Your task to perform on an android device: install app "Reddit" Image 0: 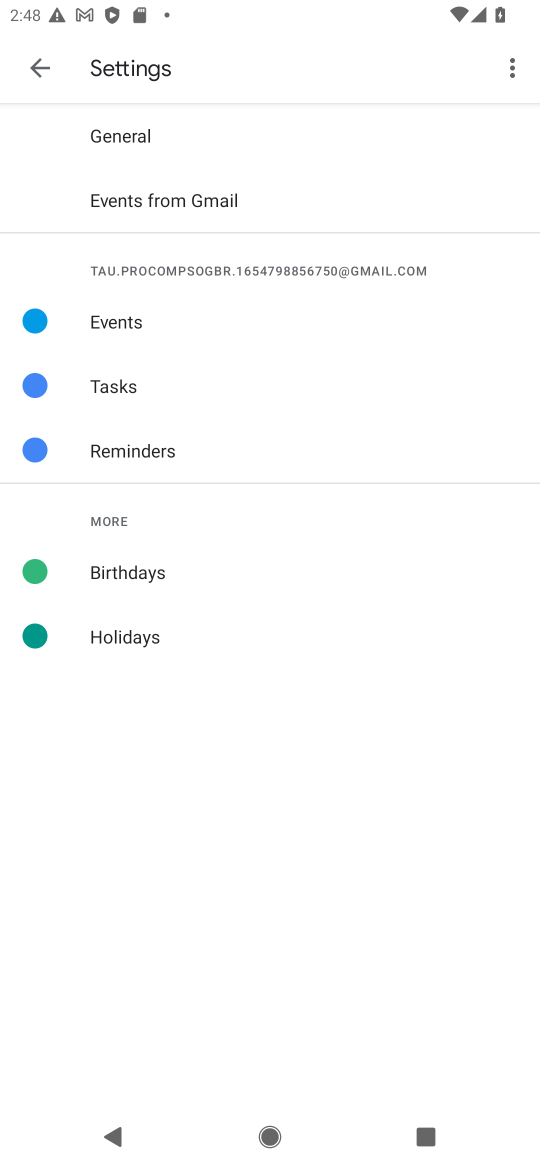
Step 0: press home button
Your task to perform on an android device: install app "Reddit" Image 1: 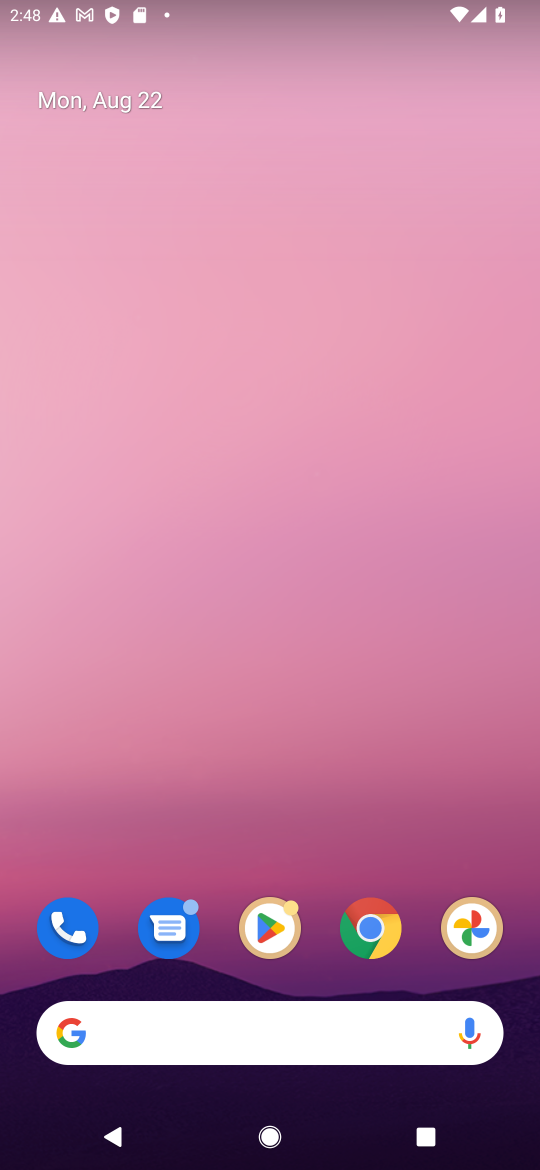
Step 1: click (257, 923)
Your task to perform on an android device: install app "Reddit" Image 2: 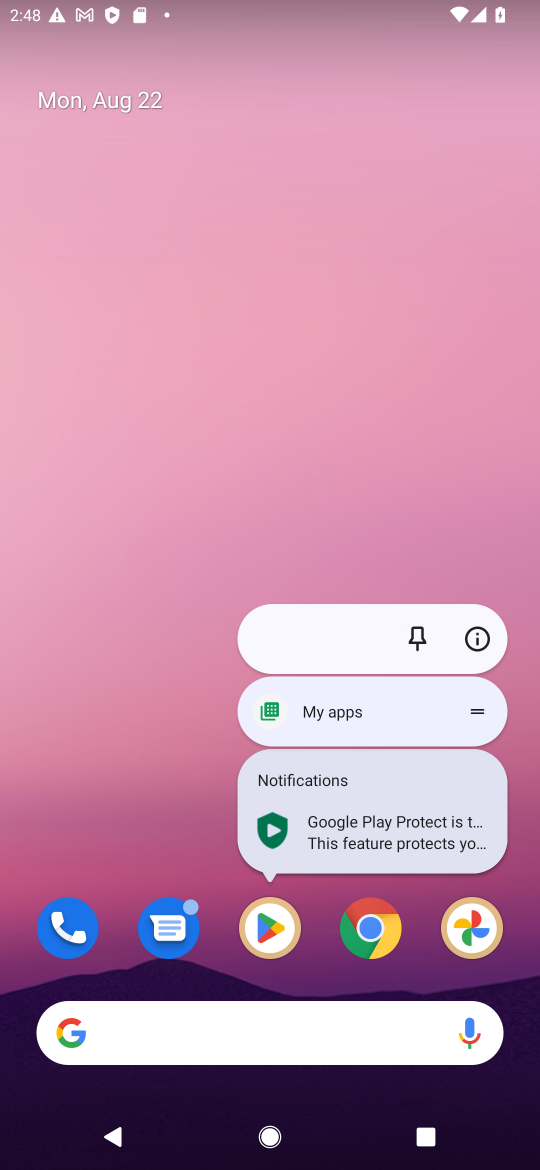
Step 2: click (262, 928)
Your task to perform on an android device: install app "Reddit" Image 3: 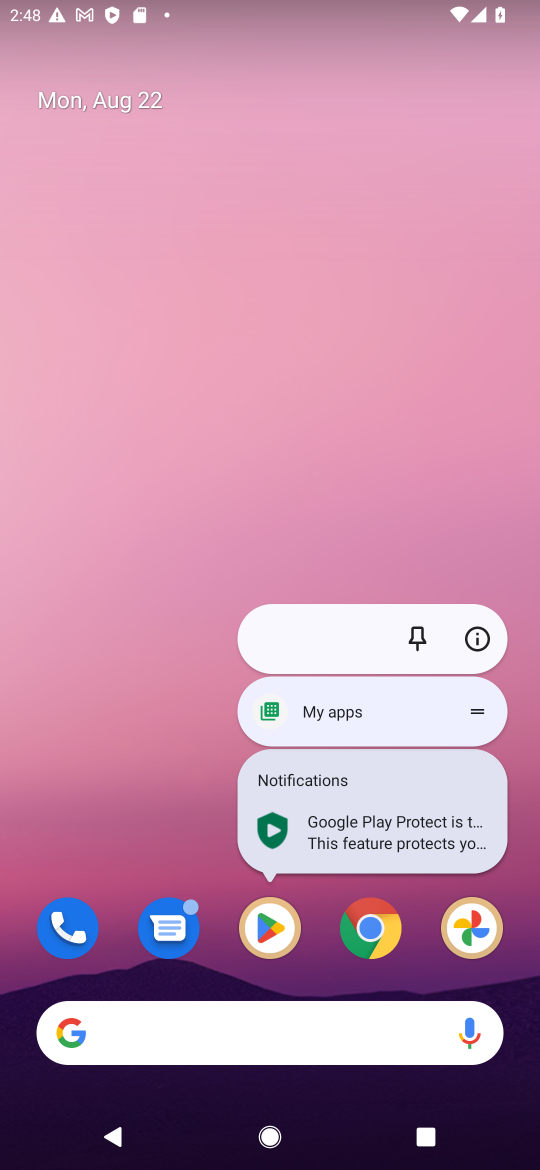
Step 3: click (268, 926)
Your task to perform on an android device: install app "Reddit" Image 4: 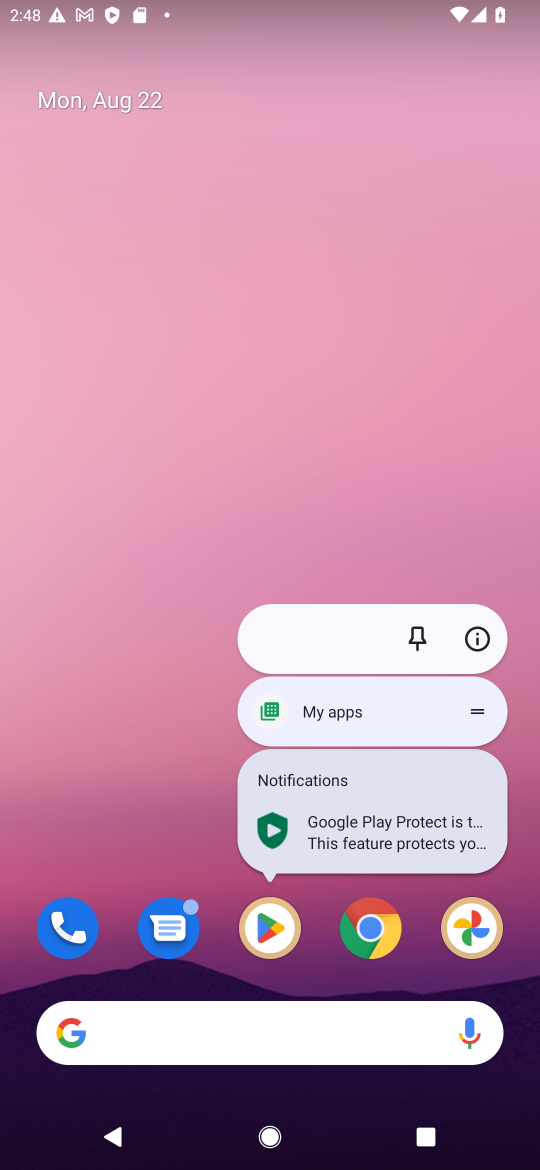
Step 4: click (275, 932)
Your task to perform on an android device: install app "Reddit" Image 5: 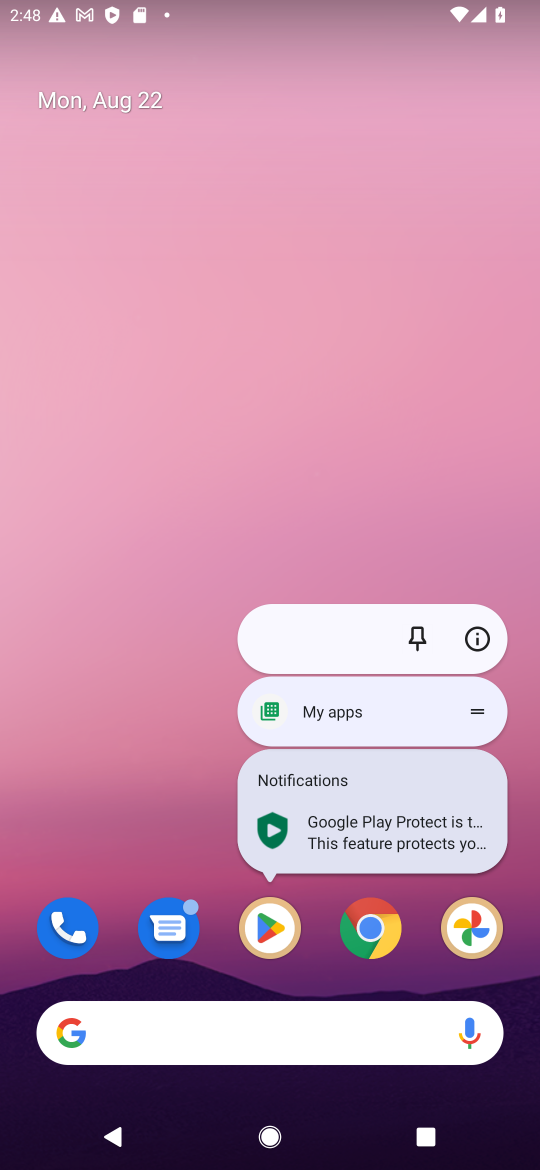
Step 5: click (275, 932)
Your task to perform on an android device: install app "Reddit" Image 6: 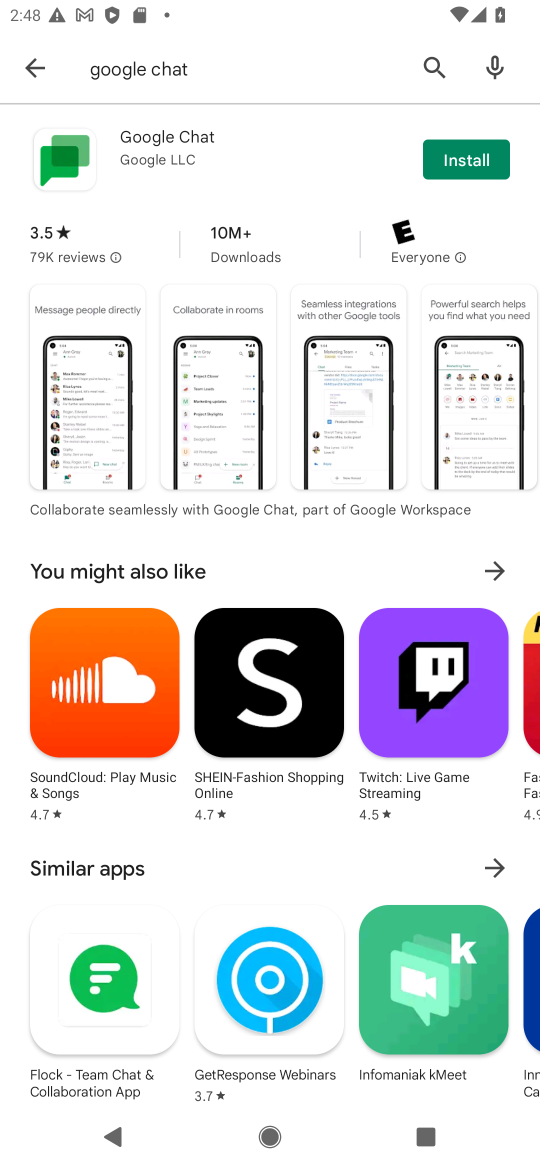
Step 6: click (167, 85)
Your task to perform on an android device: install app "Reddit" Image 7: 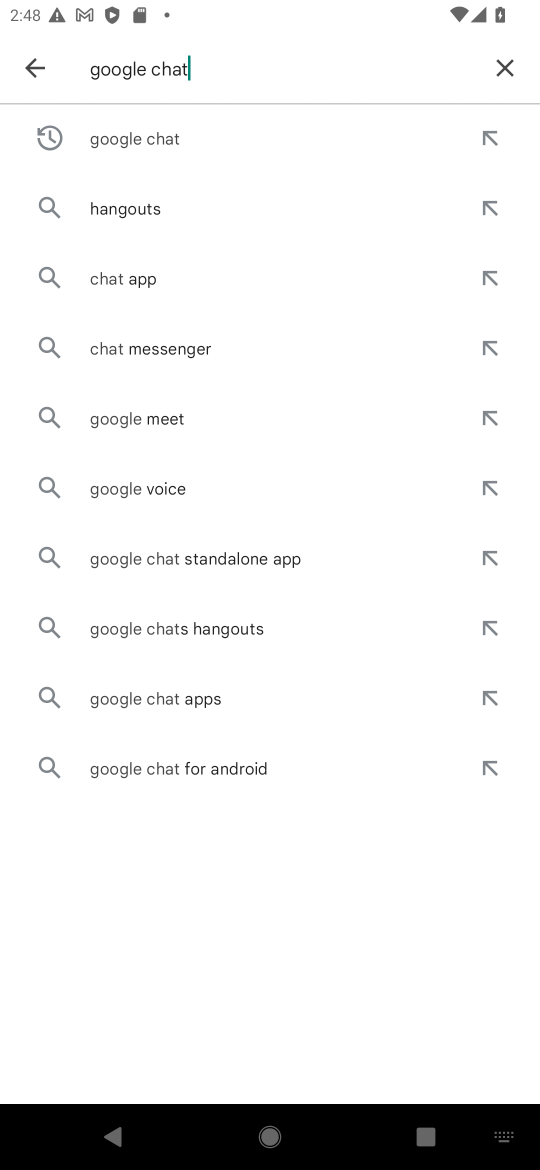
Step 7: click (501, 64)
Your task to perform on an android device: install app "Reddit" Image 8: 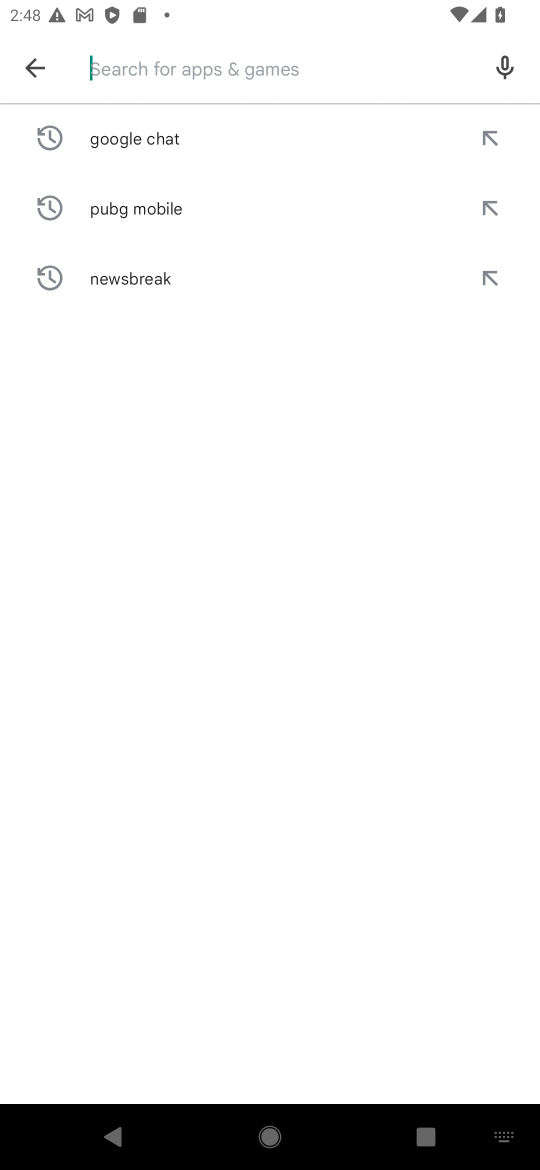
Step 8: type "Reddit"
Your task to perform on an android device: install app "Reddit" Image 9: 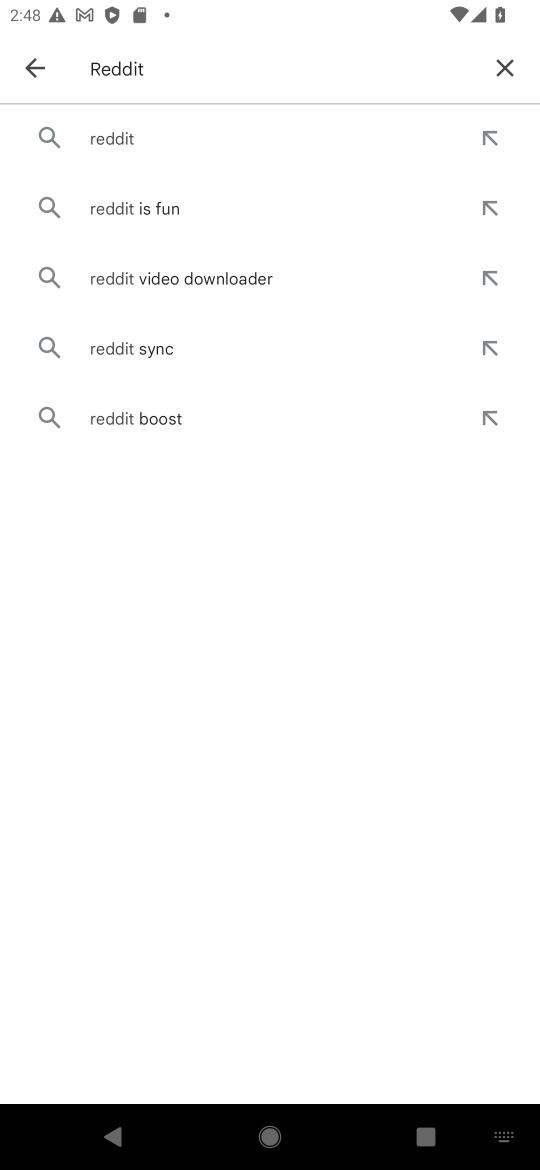
Step 9: click (141, 135)
Your task to perform on an android device: install app "Reddit" Image 10: 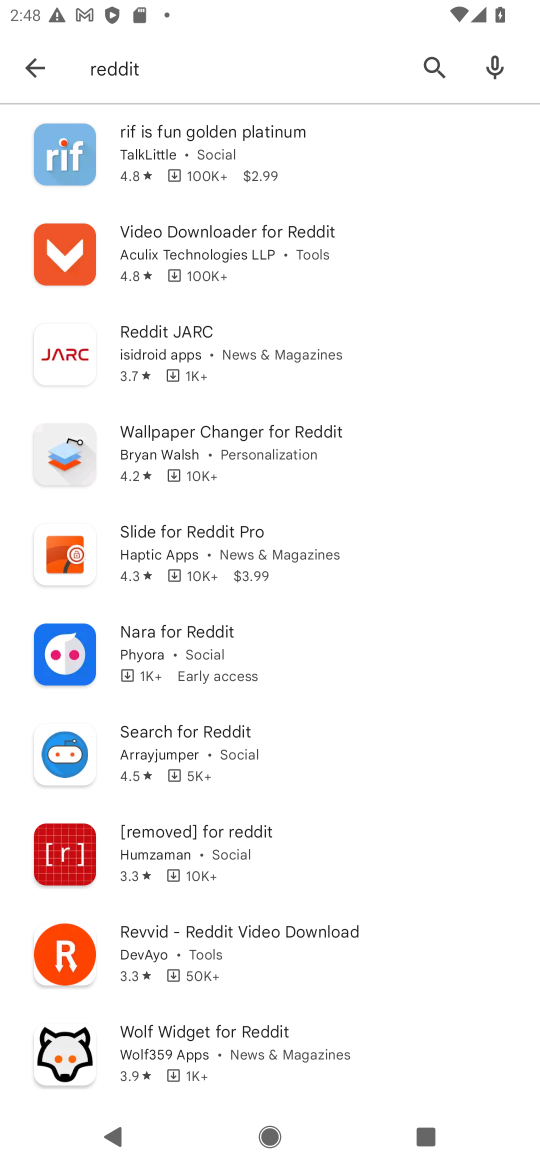
Step 10: task complete